Your task to perform on an android device: see tabs open on other devices in the chrome app Image 0: 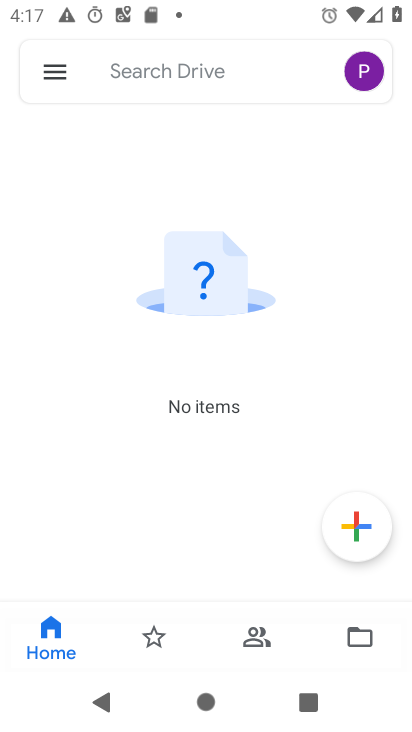
Step 0: press home button
Your task to perform on an android device: see tabs open on other devices in the chrome app Image 1: 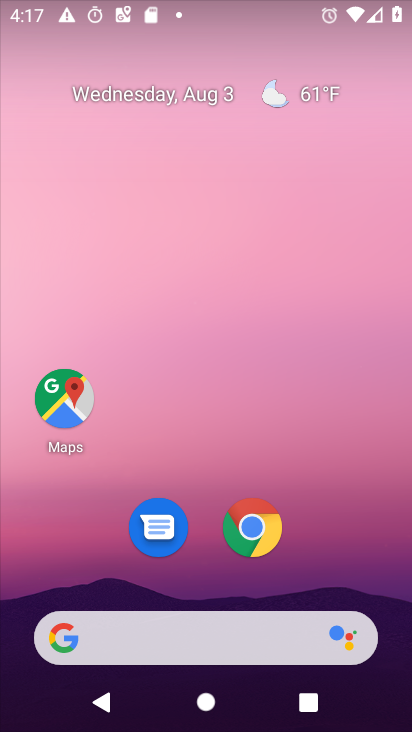
Step 1: drag from (330, 549) to (366, 71)
Your task to perform on an android device: see tabs open on other devices in the chrome app Image 2: 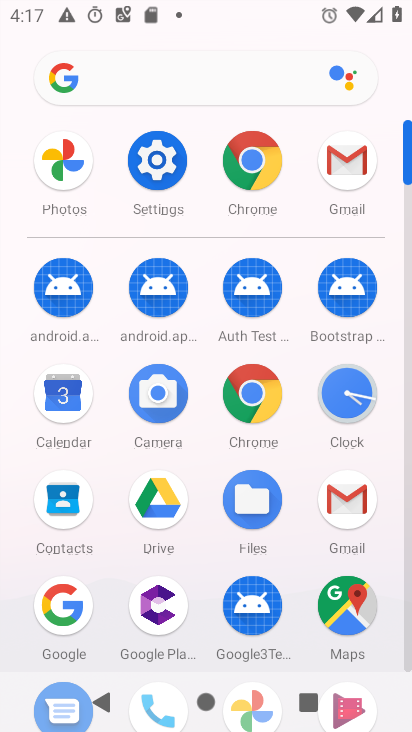
Step 2: click (253, 386)
Your task to perform on an android device: see tabs open on other devices in the chrome app Image 3: 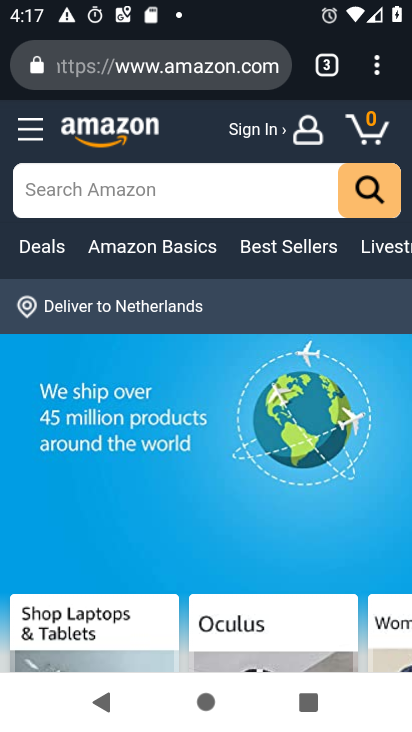
Step 3: drag from (382, 63) to (178, 321)
Your task to perform on an android device: see tabs open on other devices in the chrome app Image 4: 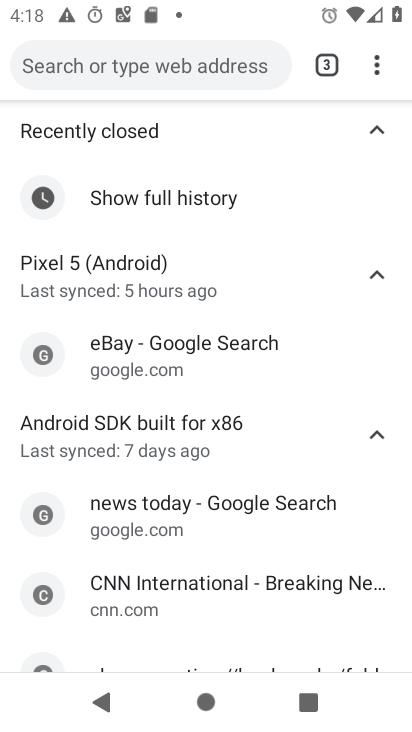
Step 4: press home button
Your task to perform on an android device: see tabs open on other devices in the chrome app Image 5: 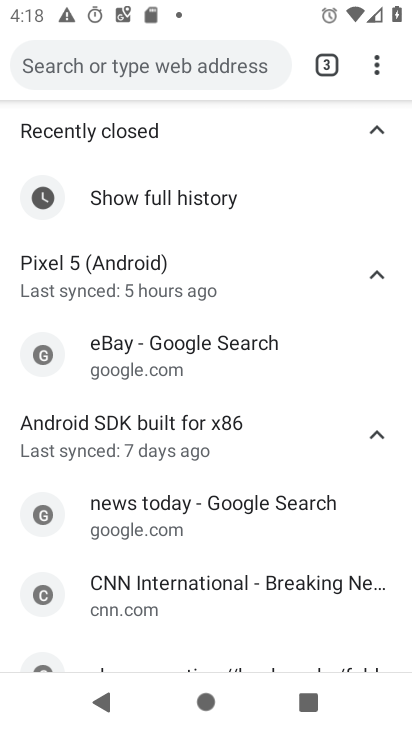
Step 5: press home button
Your task to perform on an android device: see tabs open on other devices in the chrome app Image 6: 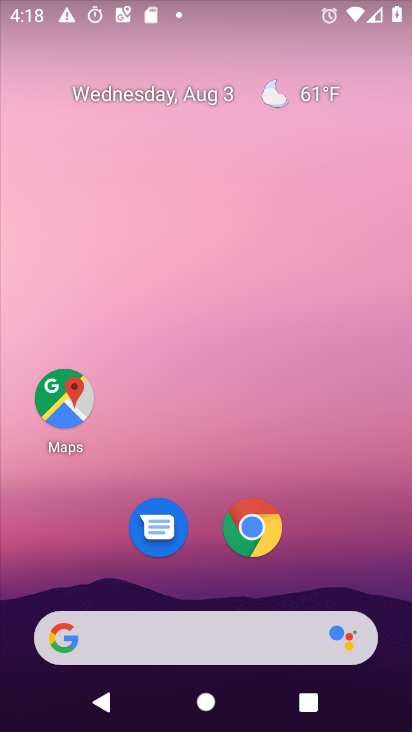
Step 6: drag from (336, 551) to (288, 75)
Your task to perform on an android device: see tabs open on other devices in the chrome app Image 7: 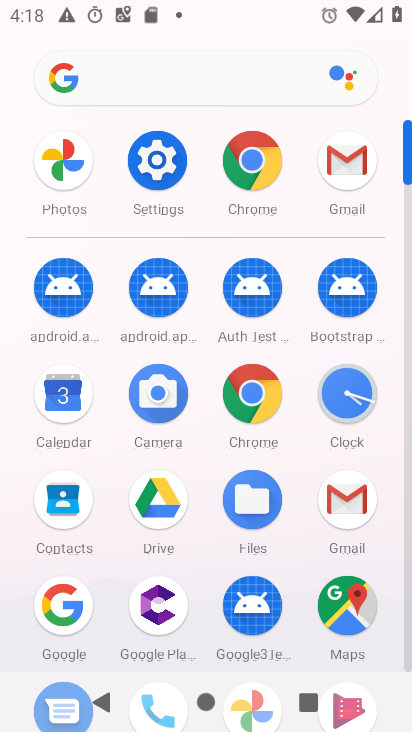
Step 7: click (259, 390)
Your task to perform on an android device: see tabs open on other devices in the chrome app Image 8: 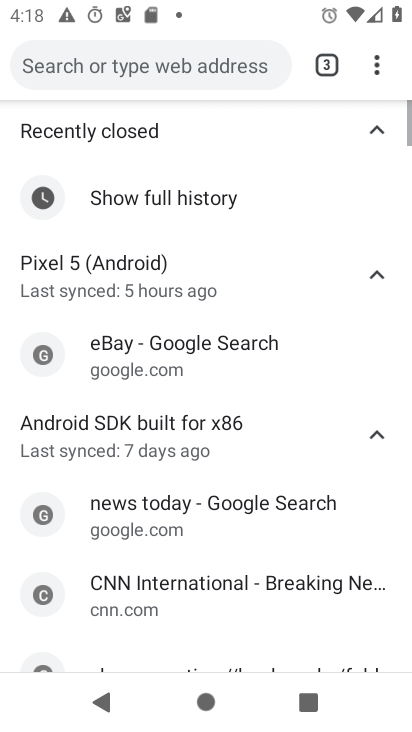
Step 8: task complete